Your task to perform on an android device: Open the Play Movies app and select the watchlist tab. Image 0: 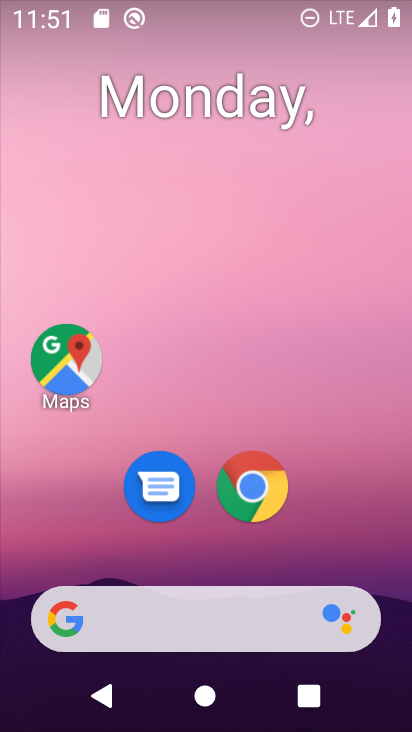
Step 0: press home button
Your task to perform on an android device: Open the Play Movies app and select the watchlist tab. Image 1: 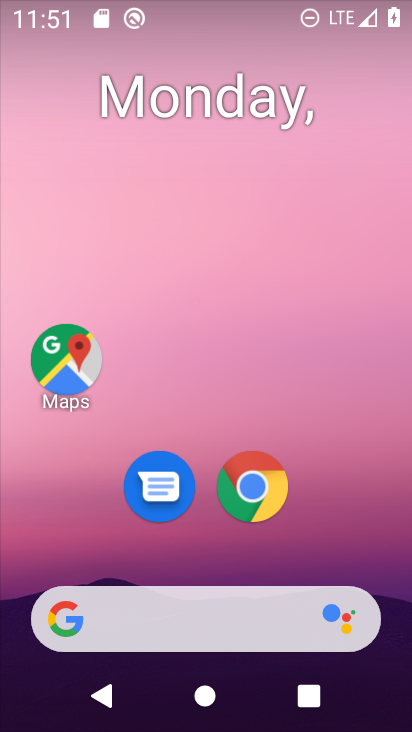
Step 1: drag from (31, 626) to (242, 254)
Your task to perform on an android device: Open the Play Movies app and select the watchlist tab. Image 2: 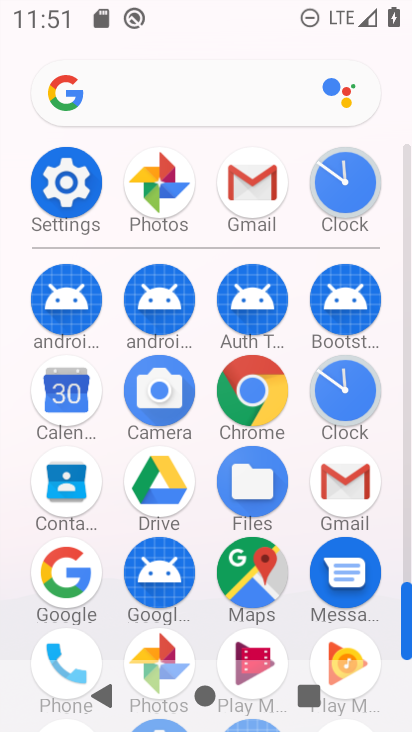
Step 2: click (343, 636)
Your task to perform on an android device: Open the Play Movies app and select the watchlist tab. Image 3: 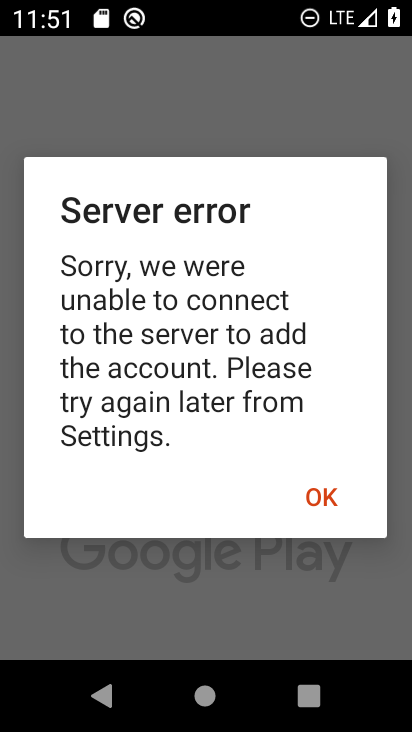
Step 3: press back button
Your task to perform on an android device: Open the Play Movies app and select the watchlist tab. Image 4: 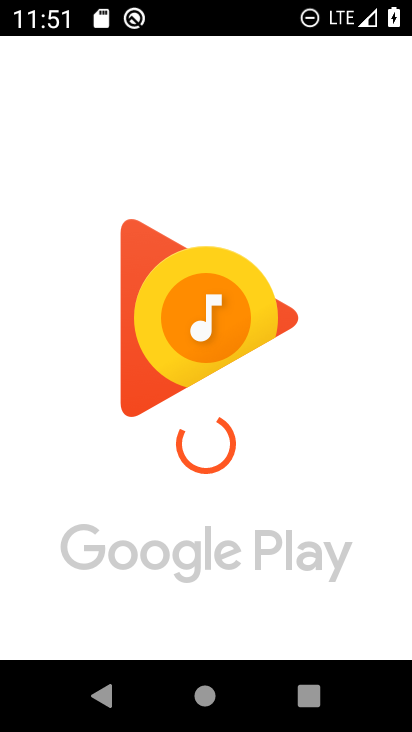
Step 4: press back button
Your task to perform on an android device: Open the Play Movies app and select the watchlist tab. Image 5: 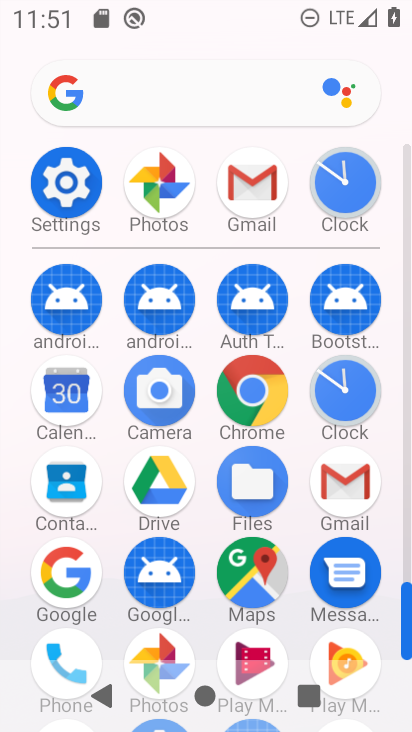
Step 5: click (270, 632)
Your task to perform on an android device: Open the Play Movies app and select the watchlist tab. Image 6: 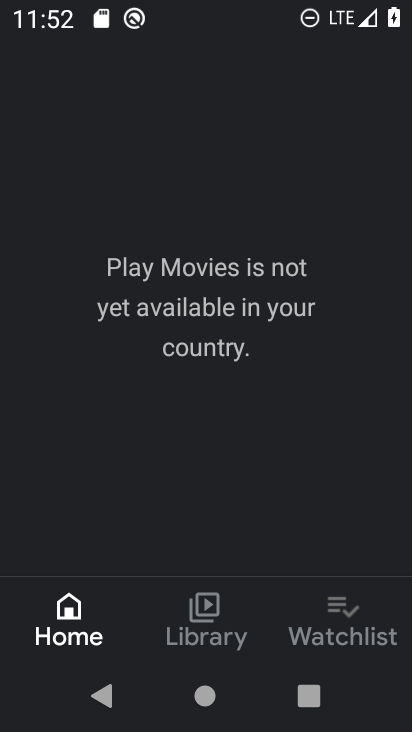
Step 6: click (355, 628)
Your task to perform on an android device: Open the Play Movies app and select the watchlist tab. Image 7: 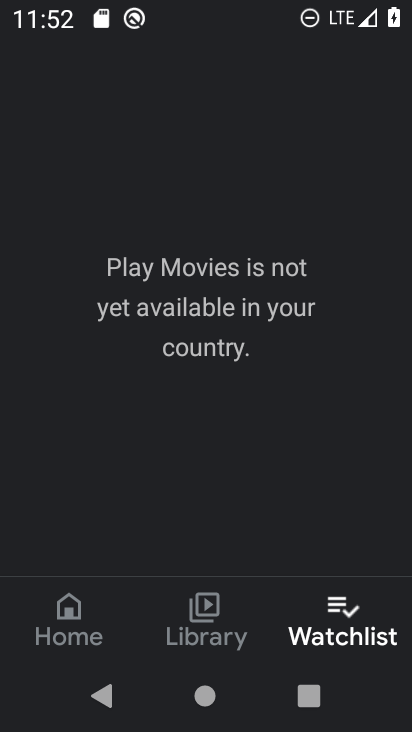
Step 7: task complete